Your task to perform on an android device: delete a single message in the gmail app Image 0: 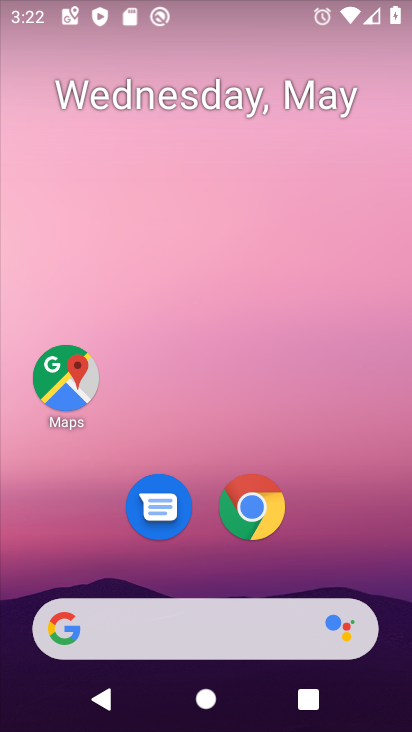
Step 0: drag from (200, 556) to (225, 137)
Your task to perform on an android device: delete a single message in the gmail app Image 1: 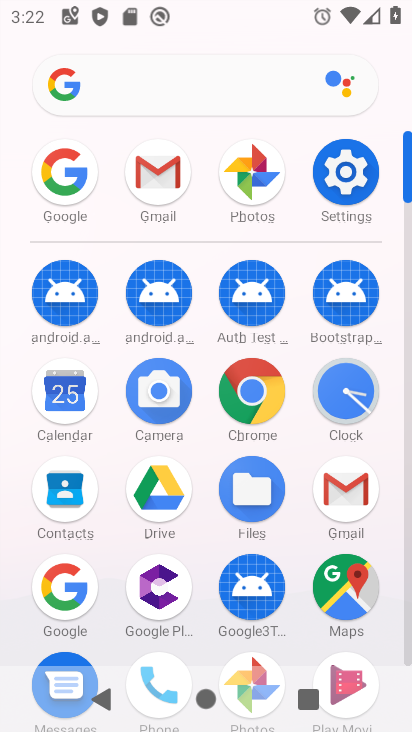
Step 1: click (163, 154)
Your task to perform on an android device: delete a single message in the gmail app Image 2: 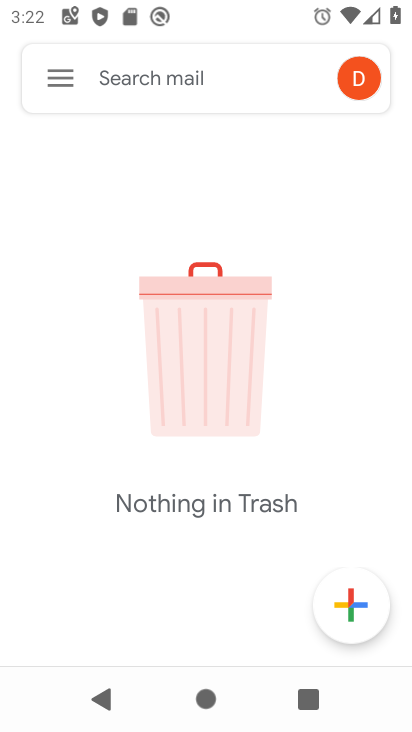
Step 2: click (56, 82)
Your task to perform on an android device: delete a single message in the gmail app Image 3: 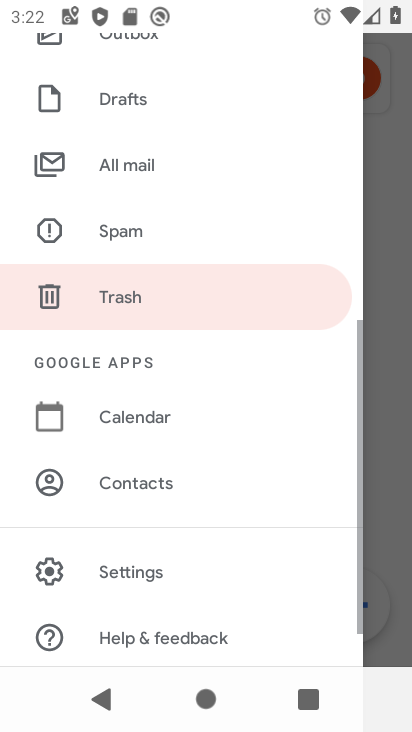
Step 3: click (114, 169)
Your task to perform on an android device: delete a single message in the gmail app Image 4: 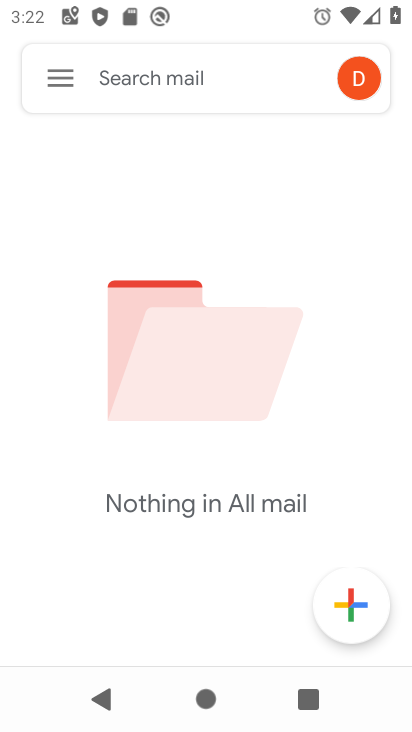
Step 4: task complete